Your task to perform on an android device: turn on sleep mode Image 0: 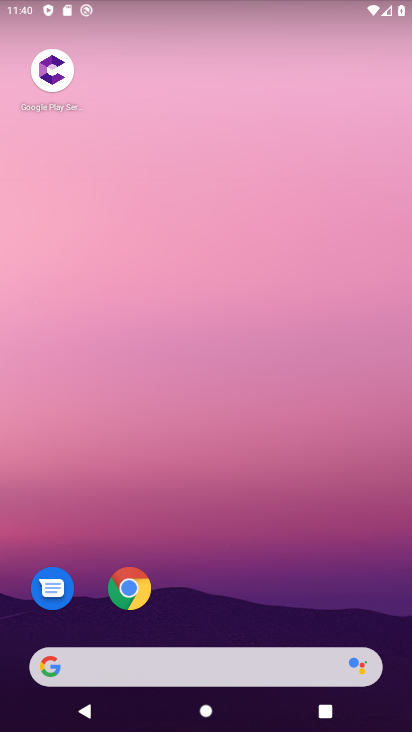
Step 0: drag from (403, 700) to (326, 90)
Your task to perform on an android device: turn on sleep mode Image 1: 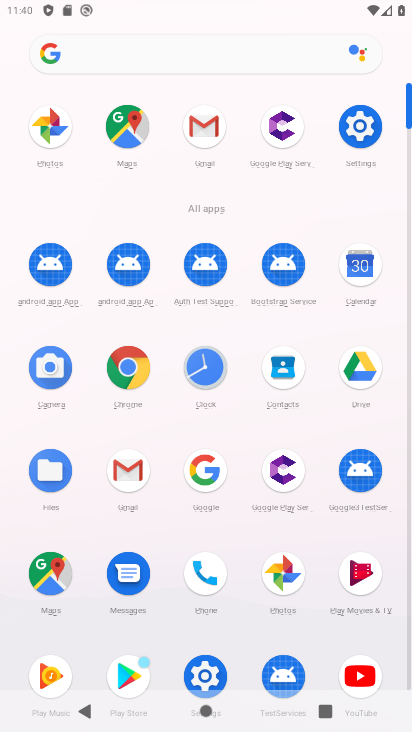
Step 1: click (348, 131)
Your task to perform on an android device: turn on sleep mode Image 2: 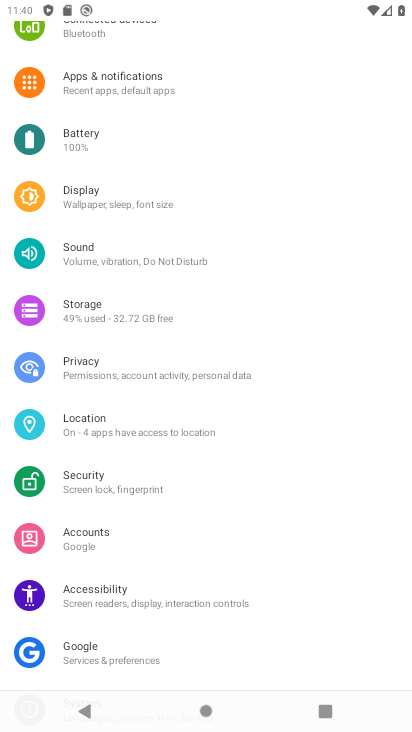
Step 2: click (91, 198)
Your task to perform on an android device: turn on sleep mode Image 3: 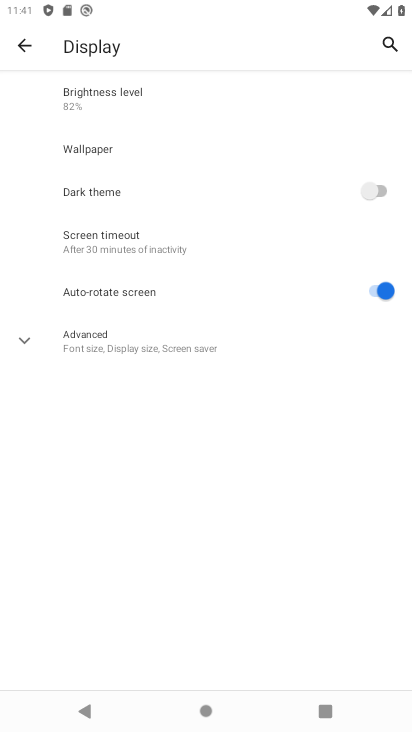
Step 3: click (139, 237)
Your task to perform on an android device: turn on sleep mode Image 4: 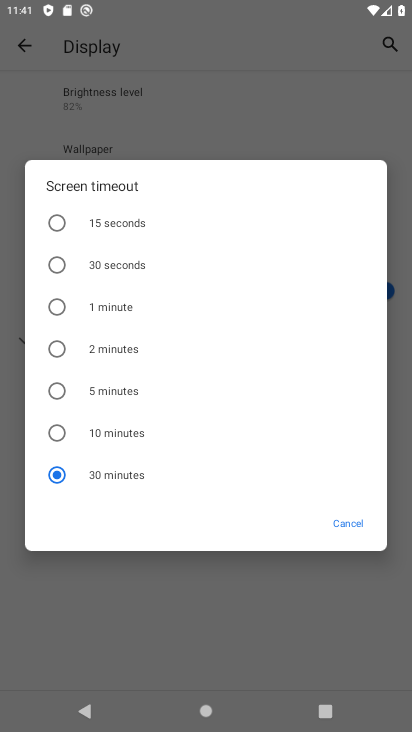
Step 4: task complete